Your task to perform on an android device: Do I have any events today? Image 0: 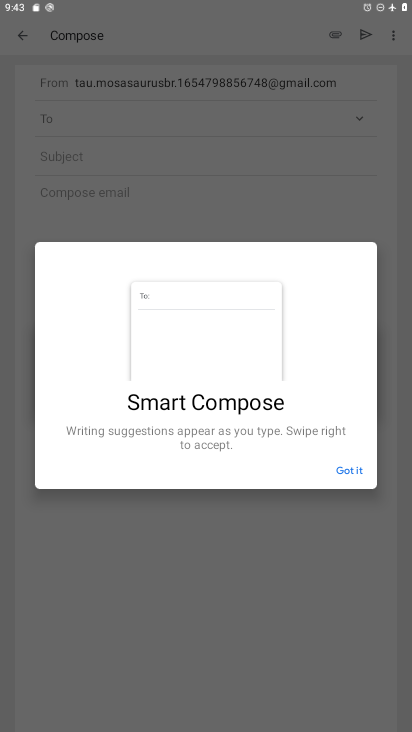
Step 0: press home button
Your task to perform on an android device: Do I have any events today? Image 1: 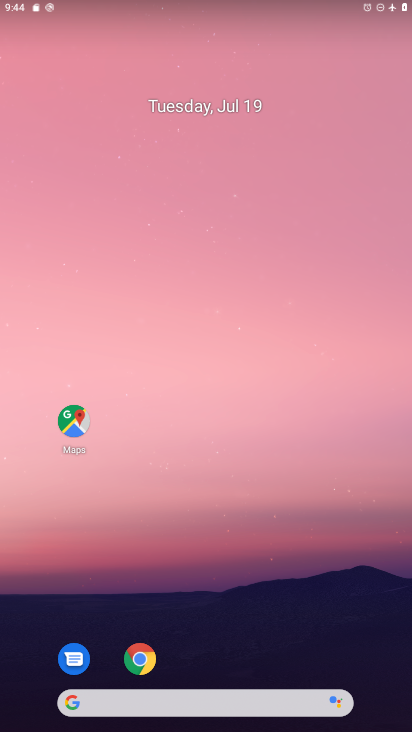
Step 1: click (237, 185)
Your task to perform on an android device: Do I have any events today? Image 2: 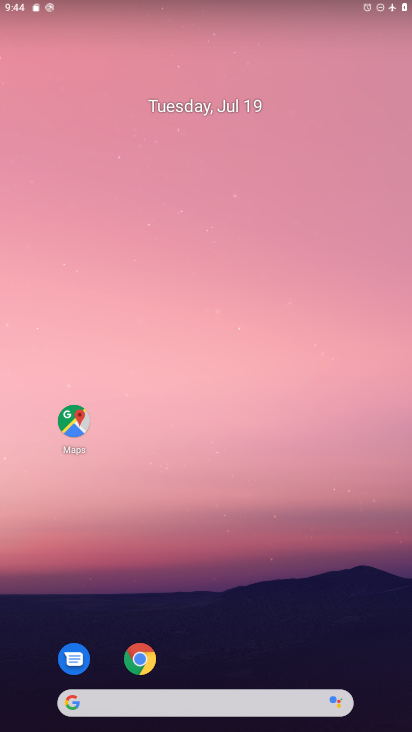
Step 2: drag from (186, 668) to (221, 138)
Your task to perform on an android device: Do I have any events today? Image 3: 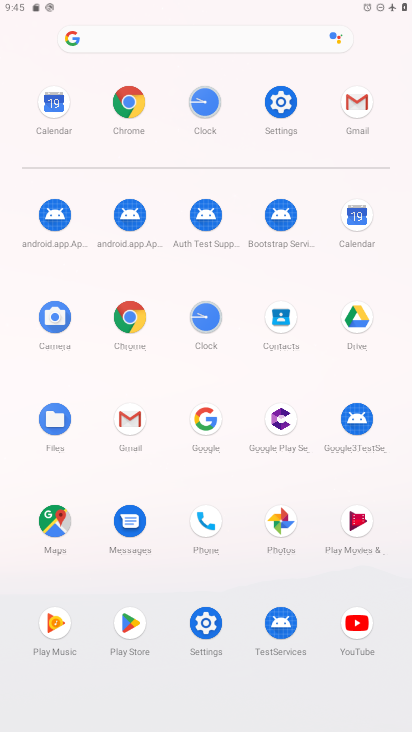
Step 3: click (367, 213)
Your task to perform on an android device: Do I have any events today? Image 4: 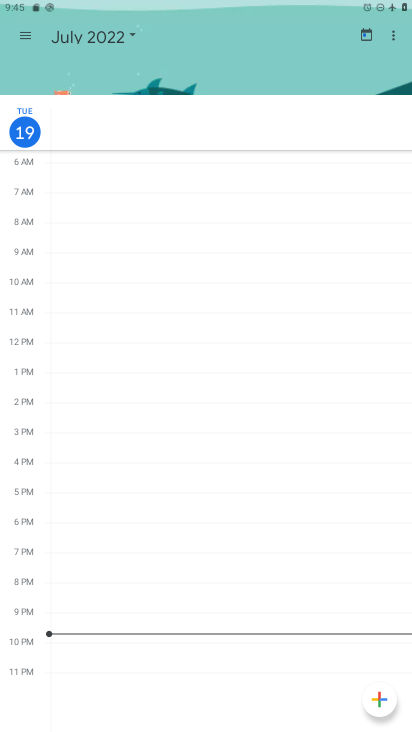
Step 4: click (32, 29)
Your task to perform on an android device: Do I have any events today? Image 5: 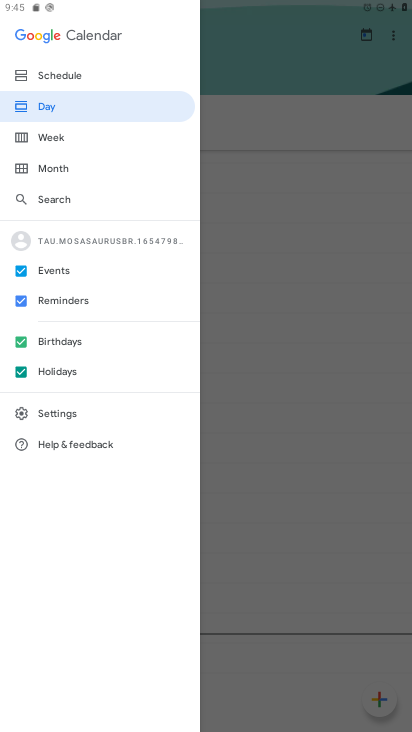
Step 5: click (46, 160)
Your task to perform on an android device: Do I have any events today? Image 6: 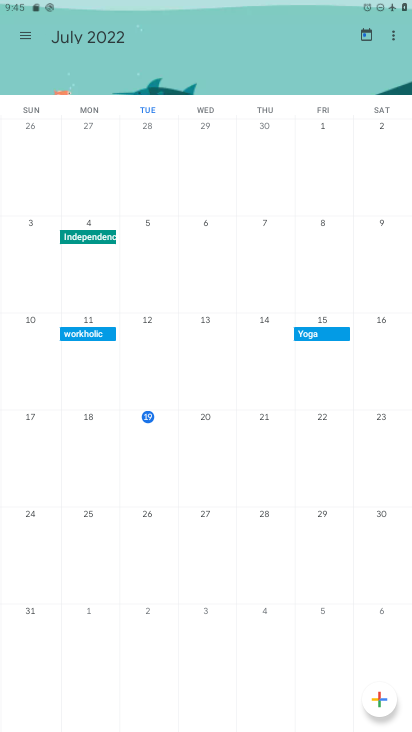
Step 6: click (222, 437)
Your task to perform on an android device: Do I have any events today? Image 7: 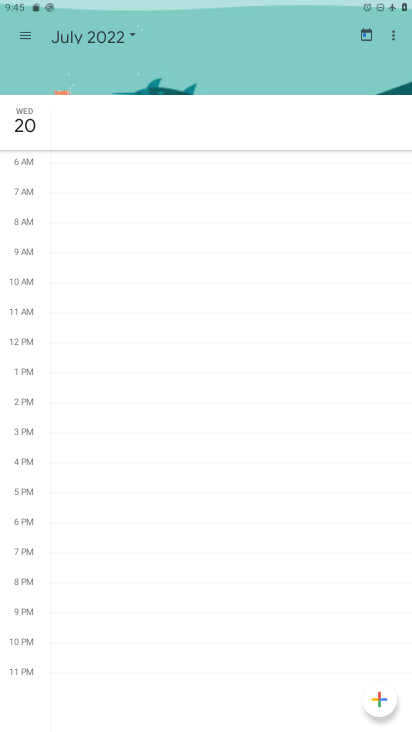
Step 7: task complete